Your task to perform on an android device: Open settings on Google Maps Image 0: 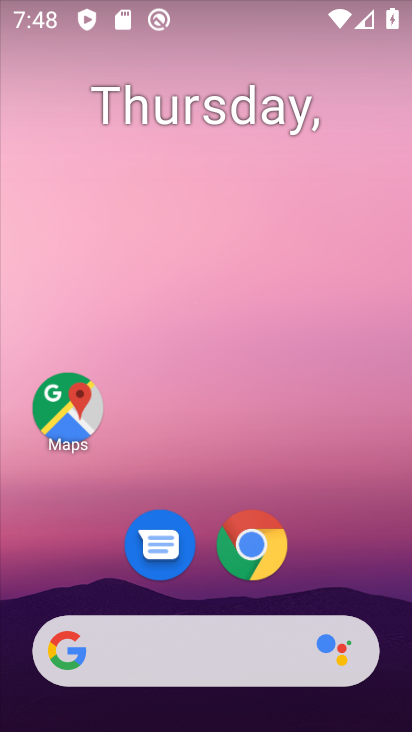
Step 0: click (65, 411)
Your task to perform on an android device: Open settings on Google Maps Image 1: 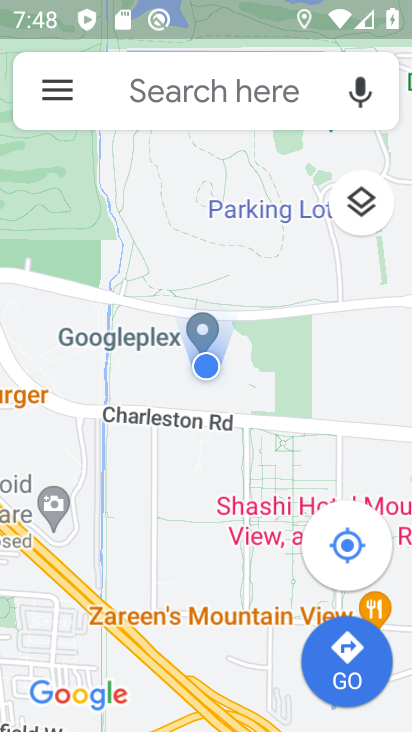
Step 1: click (51, 93)
Your task to perform on an android device: Open settings on Google Maps Image 2: 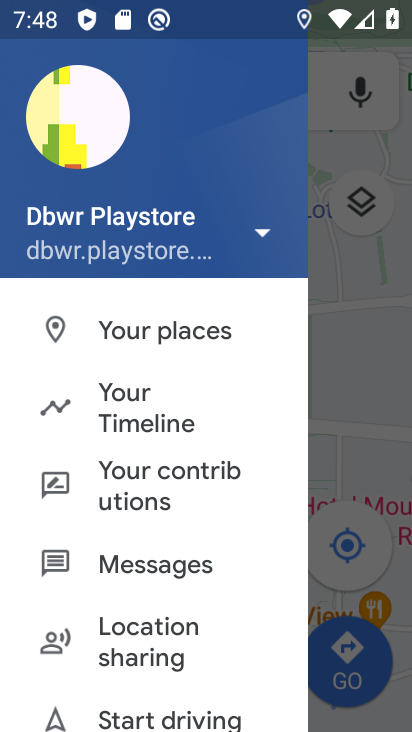
Step 2: drag from (100, 551) to (115, 414)
Your task to perform on an android device: Open settings on Google Maps Image 3: 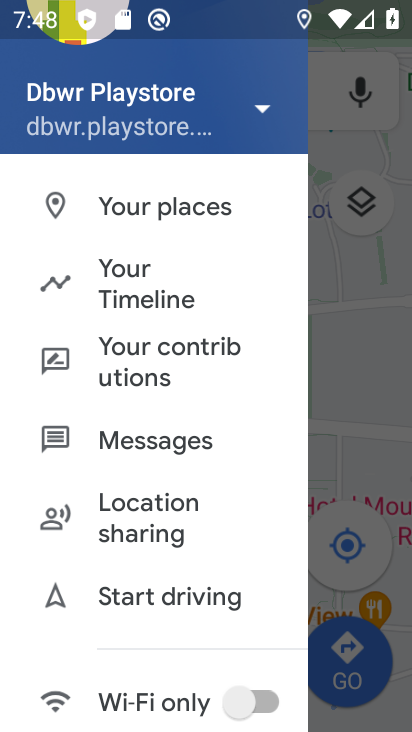
Step 3: drag from (112, 575) to (166, 464)
Your task to perform on an android device: Open settings on Google Maps Image 4: 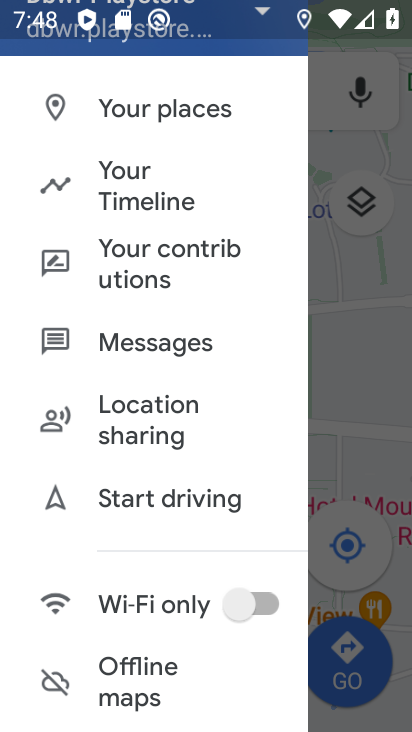
Step 4: drag from (119, 640) to (177, 505)
Your task to perform on an android device: Open settings on Google Maps Image 5: 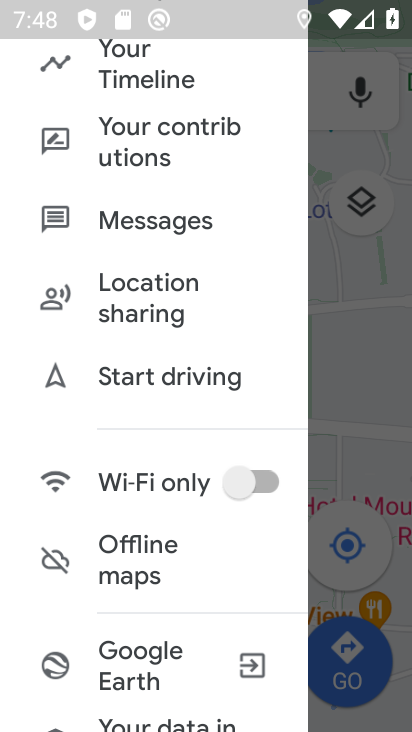
Step 5: drag from (149, 601) to (137, 459)
Your task to perform on an android device: Open settings on Google Maps Image 6: 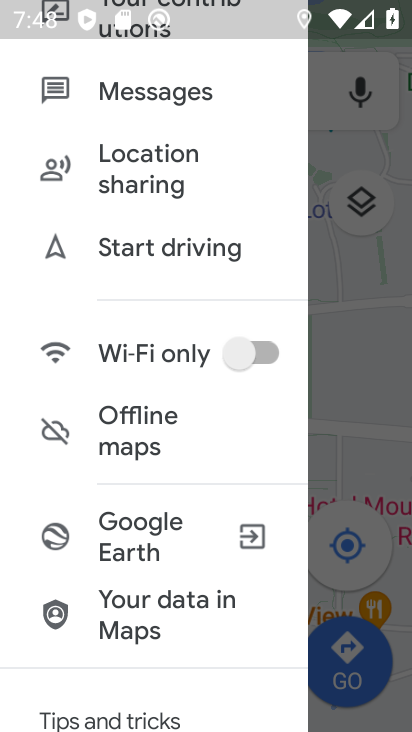
Step 6: drag from (153, 653) to (180, 551)
Your task to perform on an android device: Open settings on Google Maps Image 7: 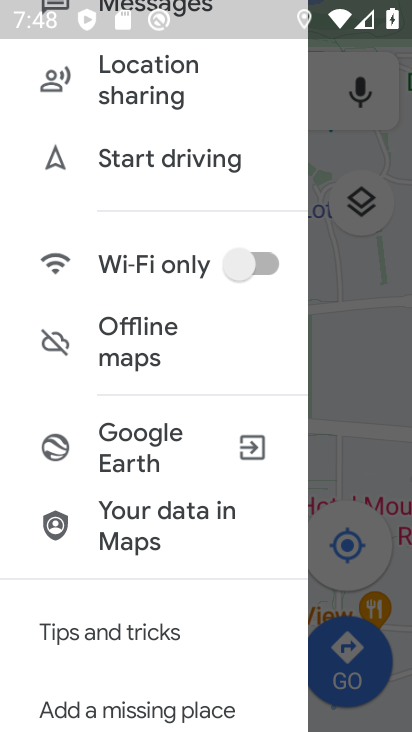
Step 7: drag from (136, 651) to (138, 521)
Your task to perform on an android device: Open settings on Google Maps Image 8: 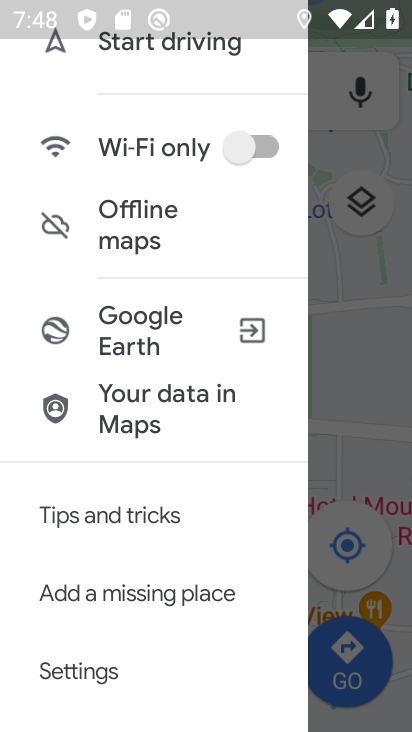
Step 8: click (80, 672)
Your task to perform on an android device: Open settings on Google Maps Image 9: 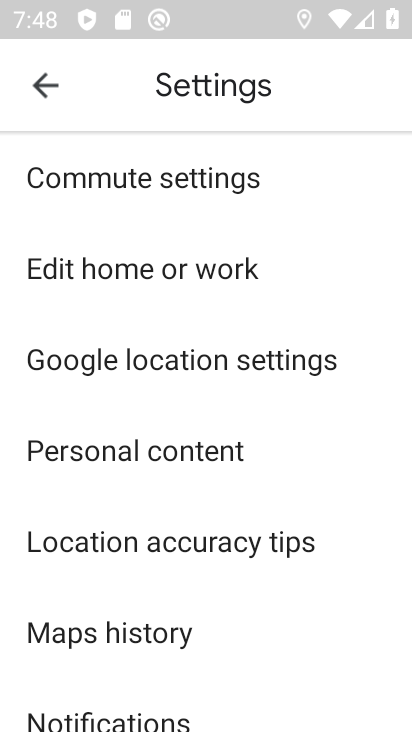
Step 9: task complete